Your task to perform on an android device: Open privacy settings Image 0: 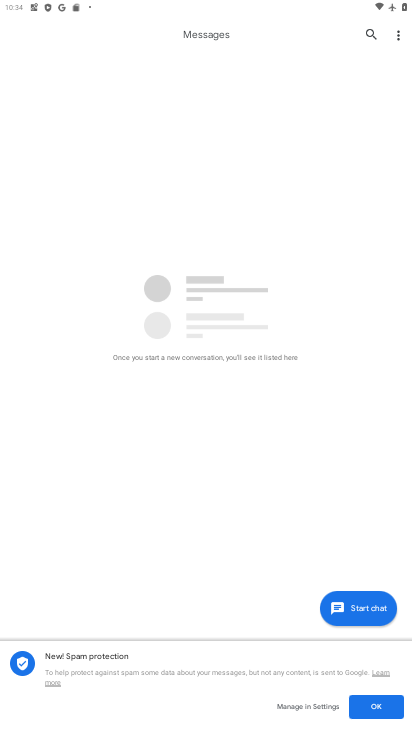
Step 0: press home button
Your task to perform on an android device: Open privacy settings Image 1: 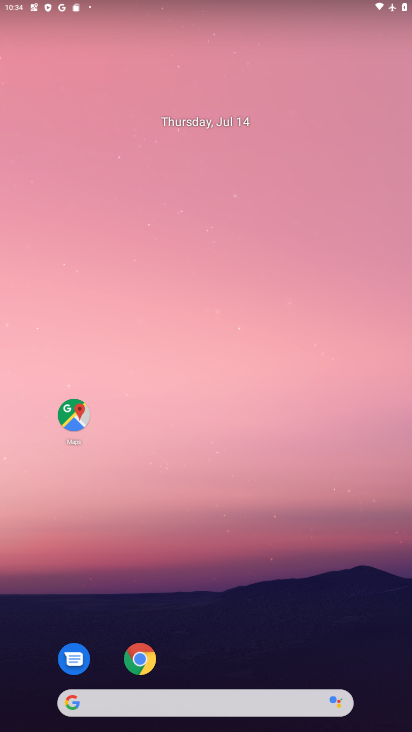
Step 1: drag from (253, 586) to (218, 129)
Your task to perform on an android device: Open privacy settings Image 2: 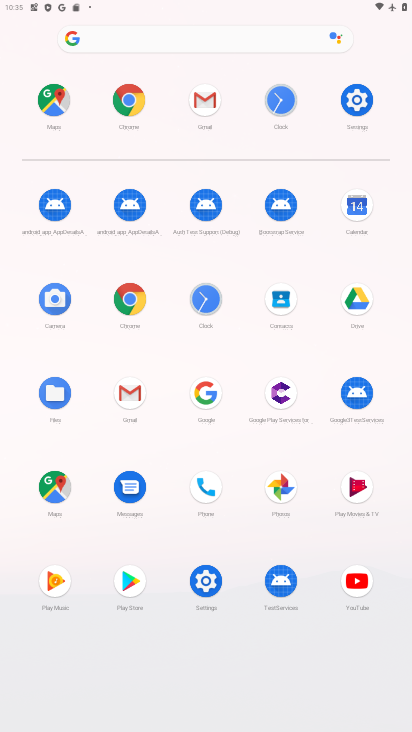
Step 2: click (355, 100)
Your task to perform on an android device: Open privacy settings Image 3: 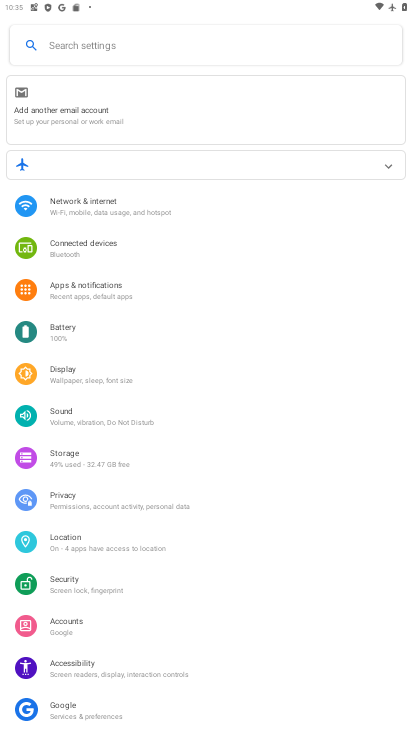
Step 3: click (75, 499)
Your task to perform on an android device: Open privacy settings Image 4: 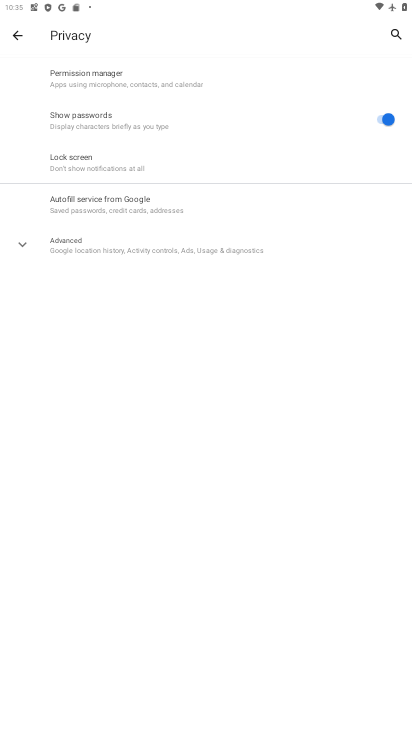
Step 4: task complete